Your task to perform on an android device: Go to settings Image 0: 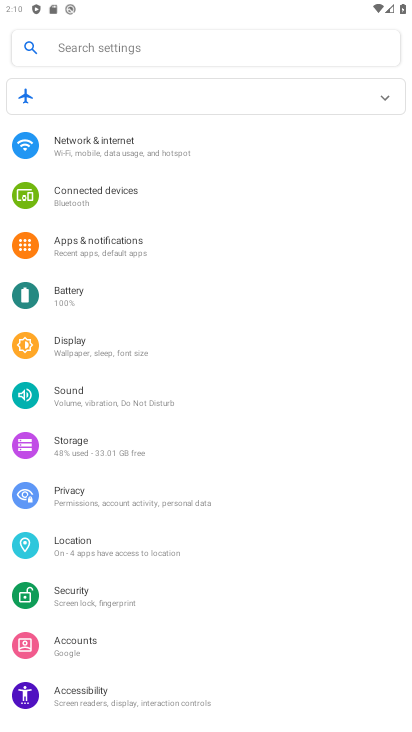
Step 0: drag from (276, 623) to (163, 165)
Your task to perform on an android device: Go to settings Image 1: 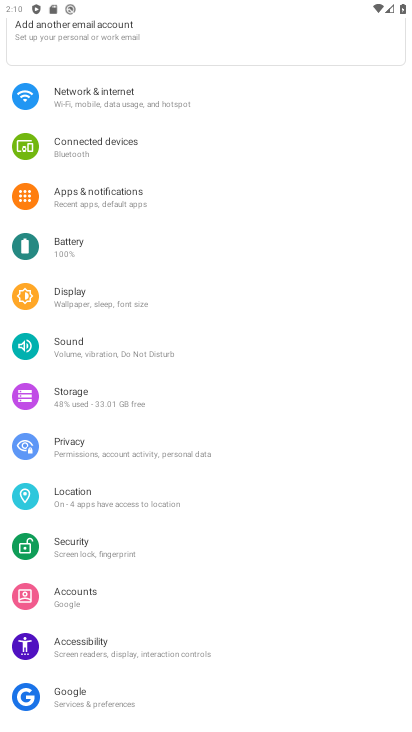
Step 1: task complete